Your task to perform on an android device: Open my contact list Image 0: 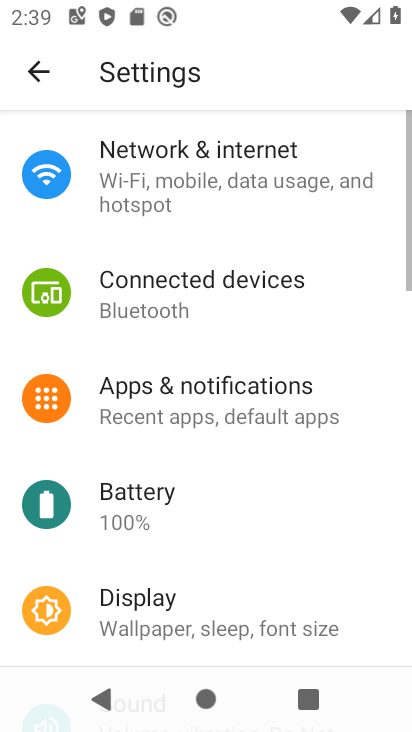
Step 0: press back button
Your task to perform on an android device: Open my contact list Image 1: 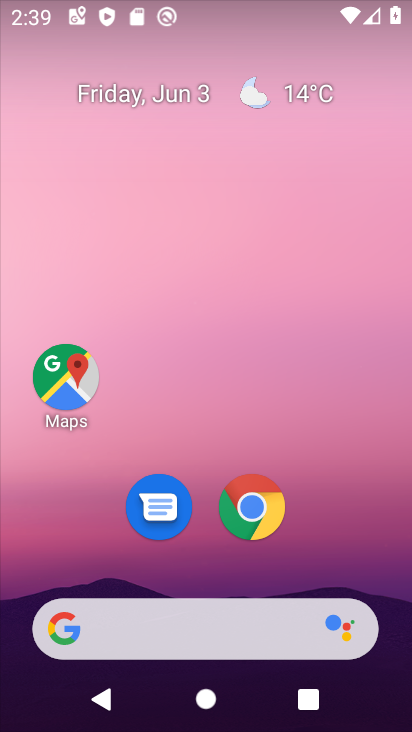
Step 1: drag from (338, 536) to (258, 51)
Your task to perform on an android device: Open my contact list Image 2: 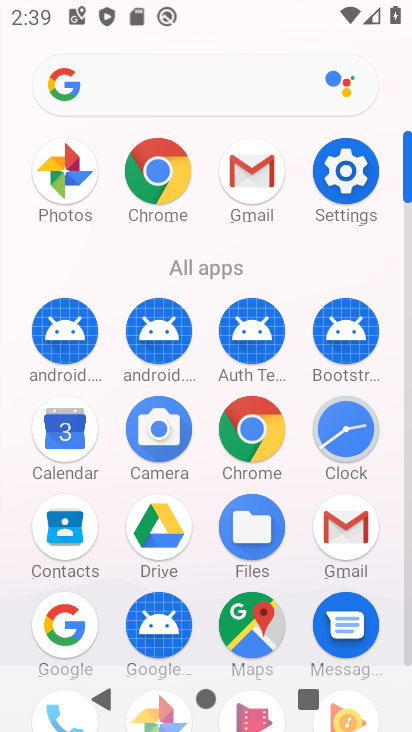
Step 2: click (66, 530)
Your task to perform on an android device: Open my contact list Image 3: 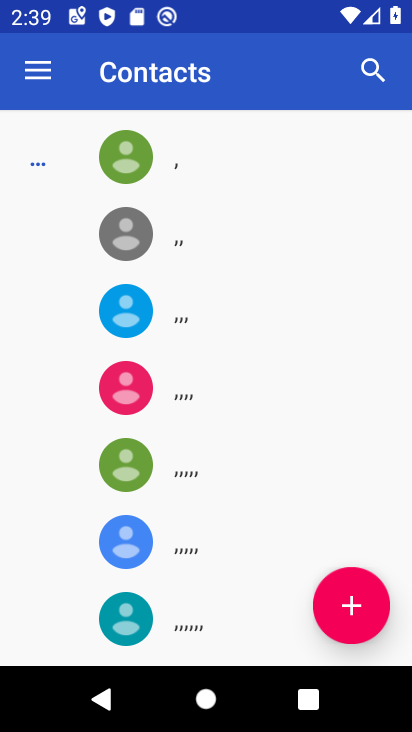
Step 3: task complete